Your task to perform on an android device: Open Yahoo.com Image 0: 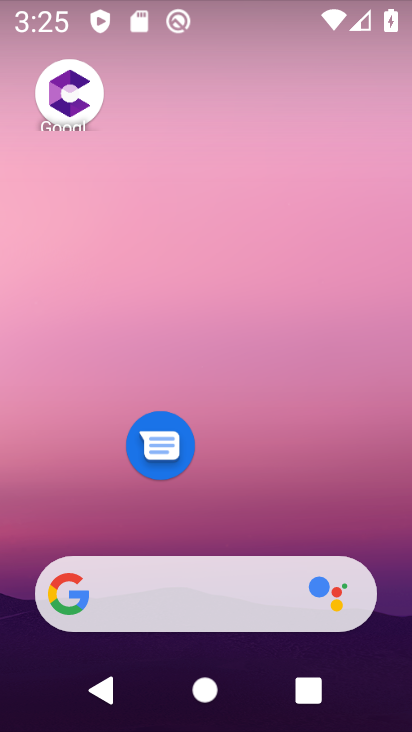
Step 0: drag from (172, 335) to (111, 3)
Your task to perform on an android device: Open Yahoo.com Image 1: 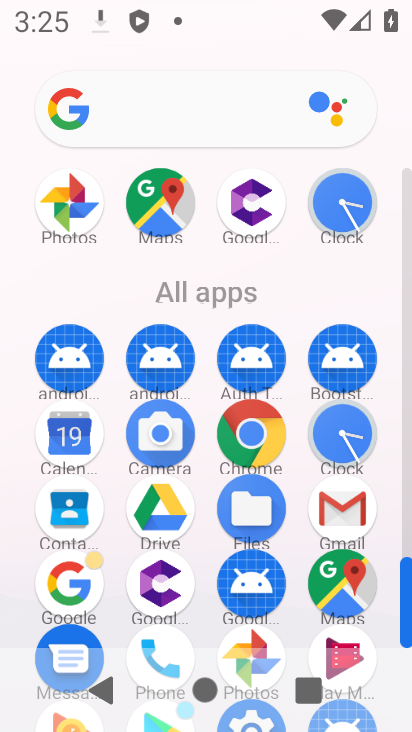
Step 1: click (255, 437)
Your task to perform on an android device: Open Yahoo.com Image 2: 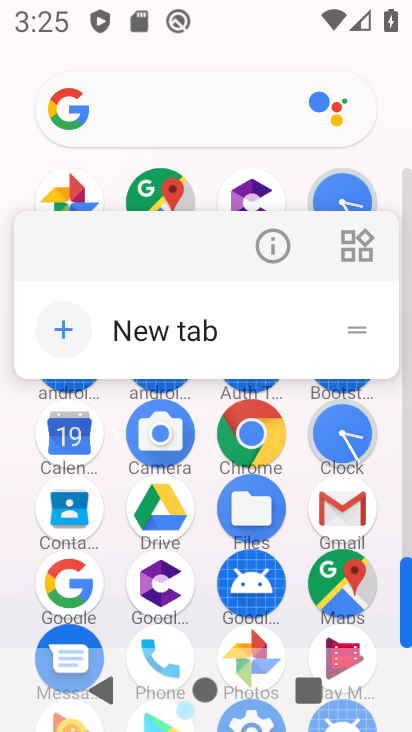
Step 2: click (256, 438)
Your task to perform on an android device: Open Yahoo.com Image 3: 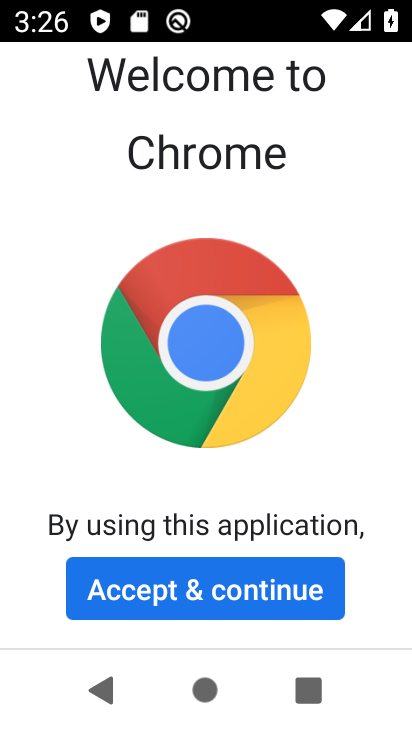
Step 3: click (222, 586)
Your task to perform on an android device: Open Yahoo.com Image 4: 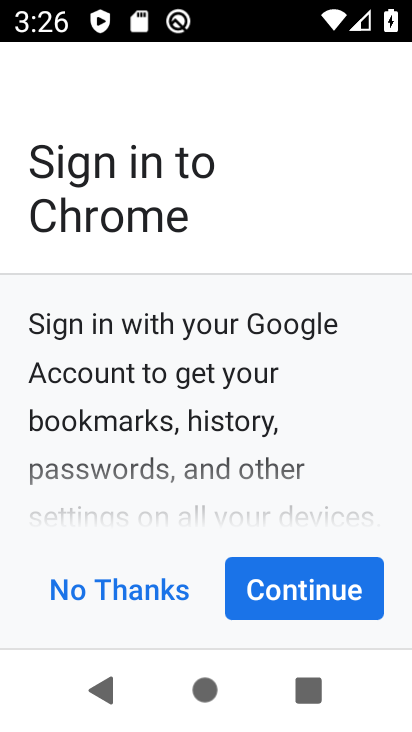
Step 4: click (260, 586)
Your task to perform on an android device: Open Yahoo.com Image 5: 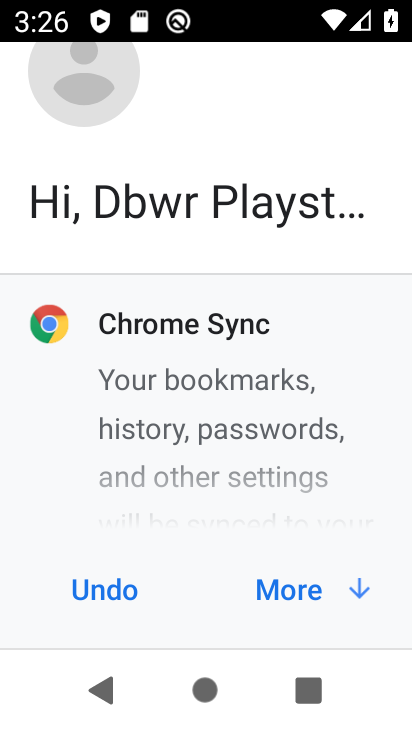
Step 5: click (282, 586)
Your task to perform on an android device: Open Yahoo.com Image 6: 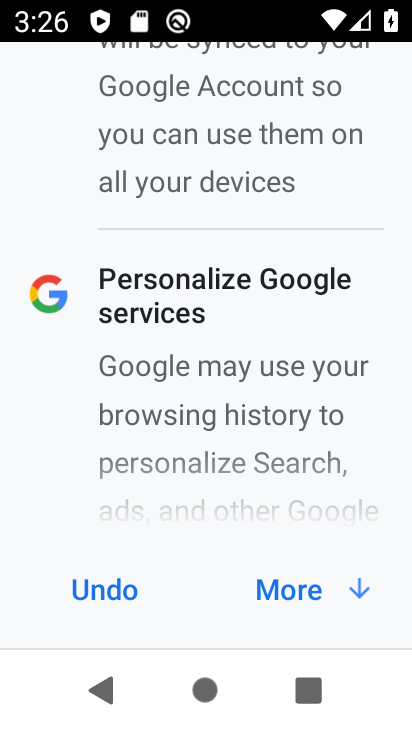
Step 6: click (360, 591)
Your task to perform on an android device: Open Yahoo.com Image 7: 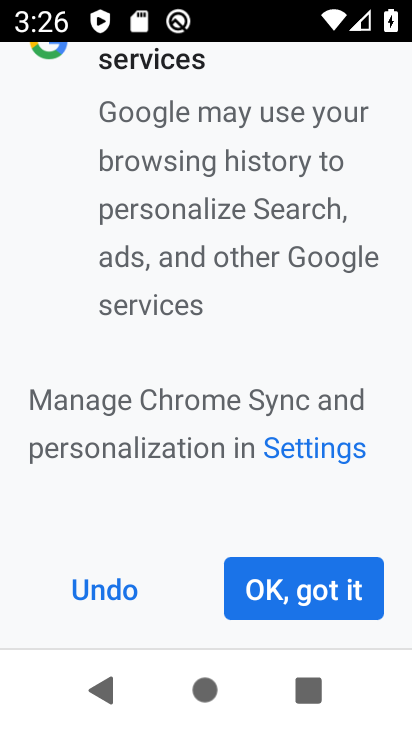
Step 7: click (318, 591)
Your task to perform on an android device: Open Yahoo.com Image 8: 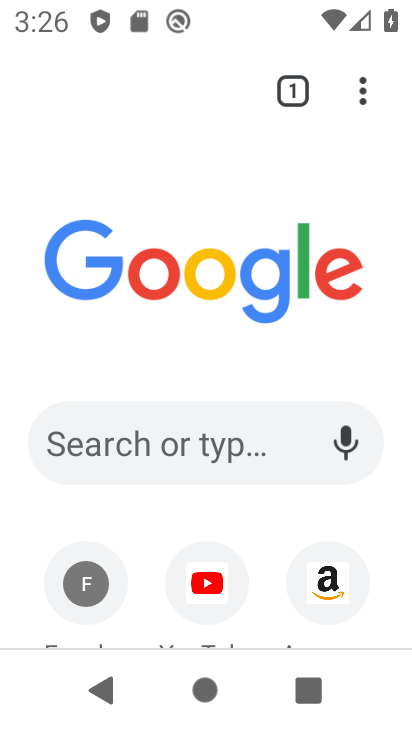
Step 8: click (213, 441)
Your task to perform on an android device: Open Yahoo.com Image 9: 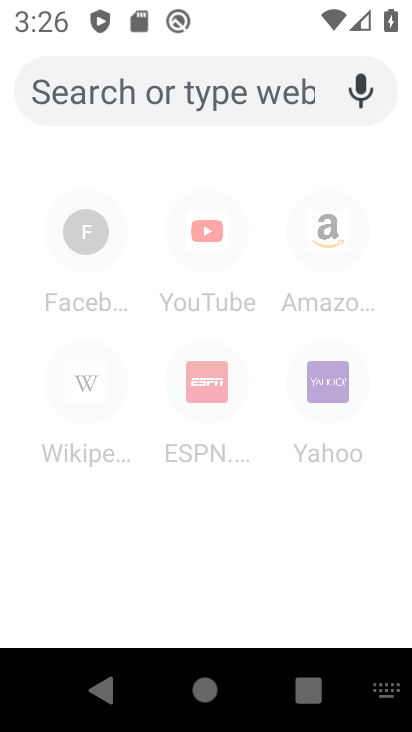
Step 9: click (318, 383)
Your task to perform on an android device: Open Yahoo.com Image 10: 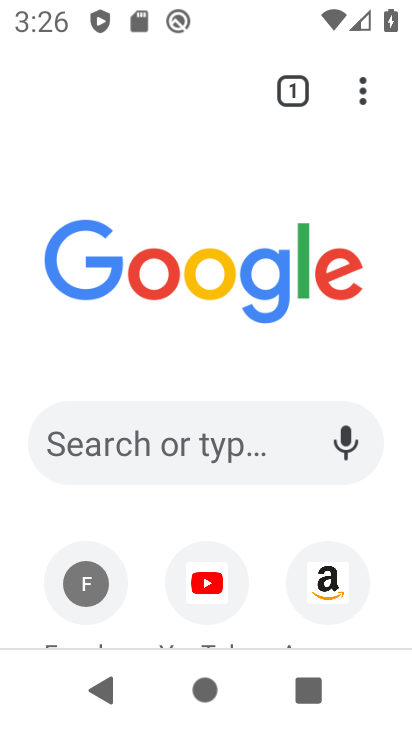
Step 10: click (318, 383)
Your task to perform on an android device: Open Yahoo.com Image 11: 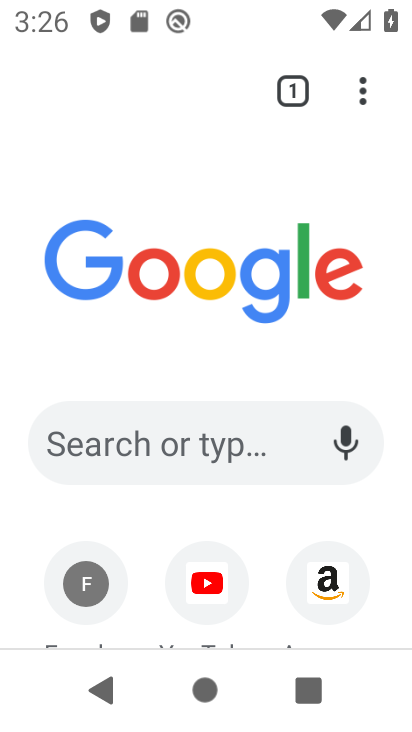
Step 11: drag from (356, 353) to (345, 5)
Your task to perform on an android device: Open Yahoo.com Image 12: 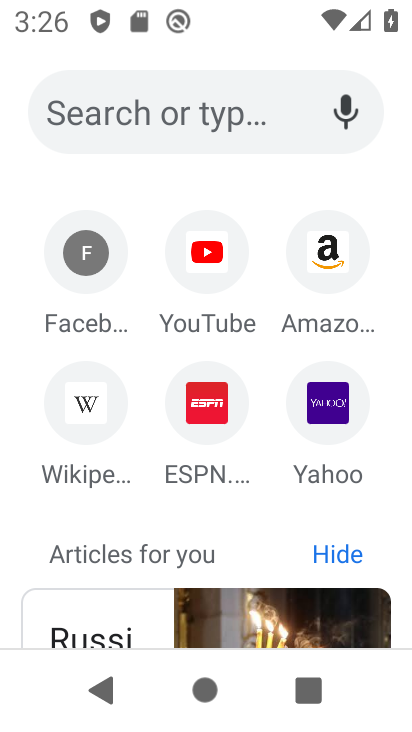
Step 12: click (325, 418)
Your task to perform on an android device: Open Yahoo.com Image 13: 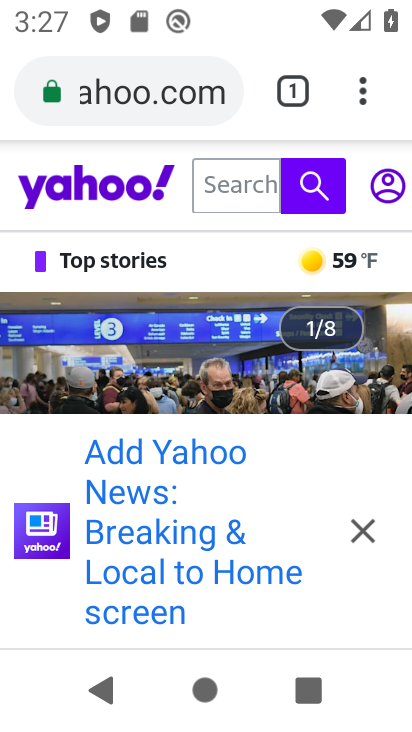
Step 13: task complete